Your task to perform on an android device: empty trash in google photos Image 0: 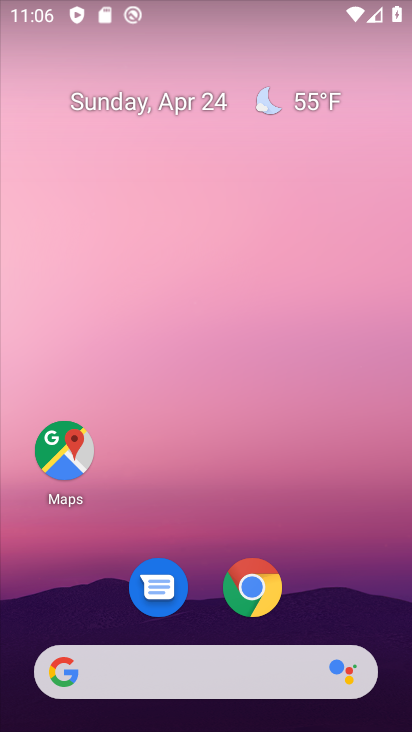
Step 0: drag from (373, 340) to (315, 16)
Your task to perform on an android device: empty trash in google photos Image 1: 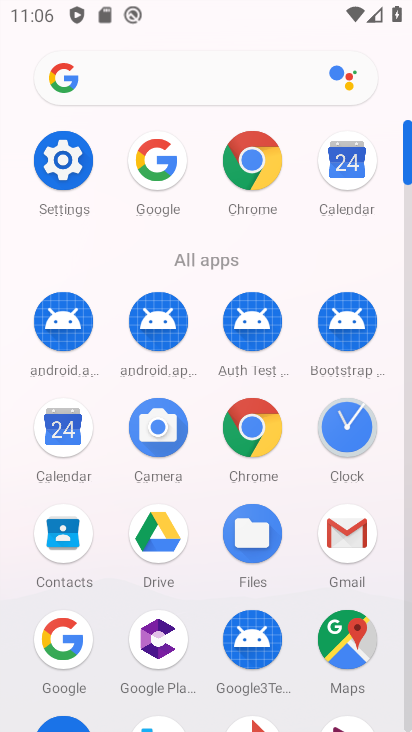
Step 1: drag from (395, 590) to (411, 304)
Your task to perform on an android device: empty trash in google photos Image 2: 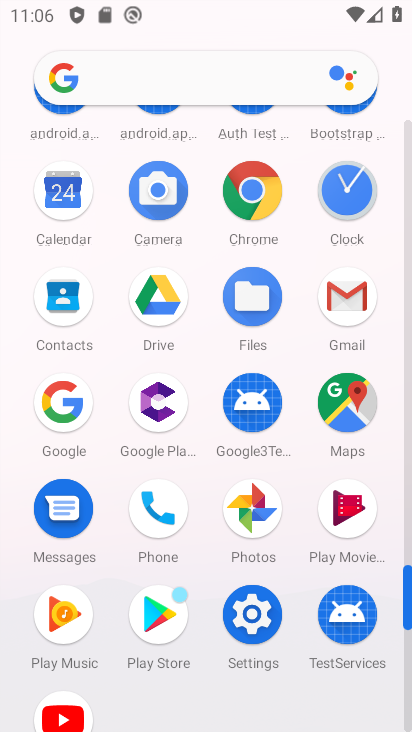
Step 2: drag from (407, 558) to (409, 200)
Your task to perform on an android device: empty trash in google photos Image 3: 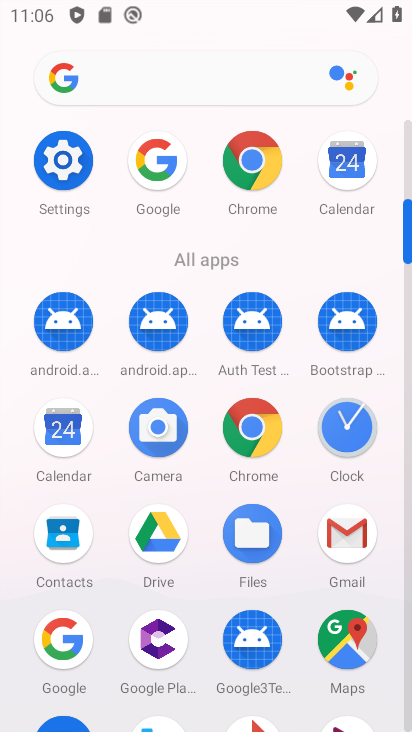
Step 3: click (262, 455)
Your task to perform on an android device: empty trash in google photos Image 4: 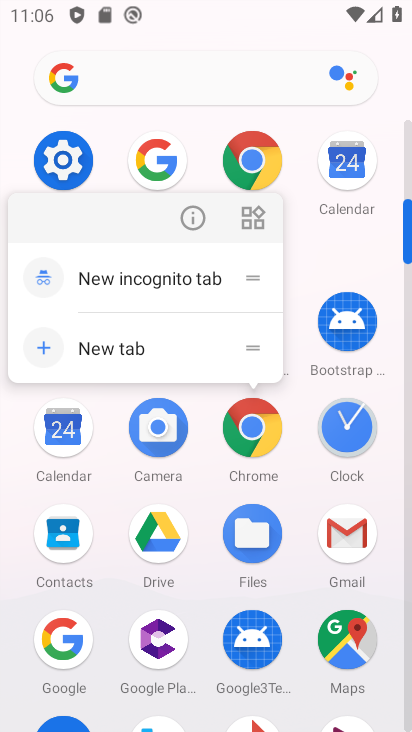
Step 4: drag from (382, 563) to (409, 493)
Your task to perform on an android device: empty trash in google photos Image 5: 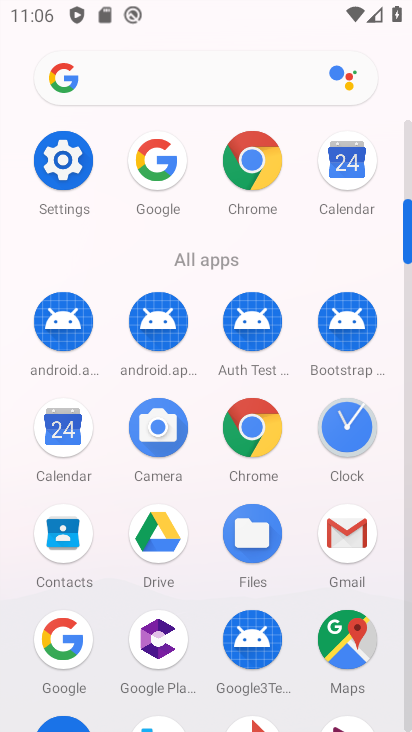
Step 5: drag from (391, 529) to (383, 132)
Your task to perform on an android device: empty trash in google photos Image 6: 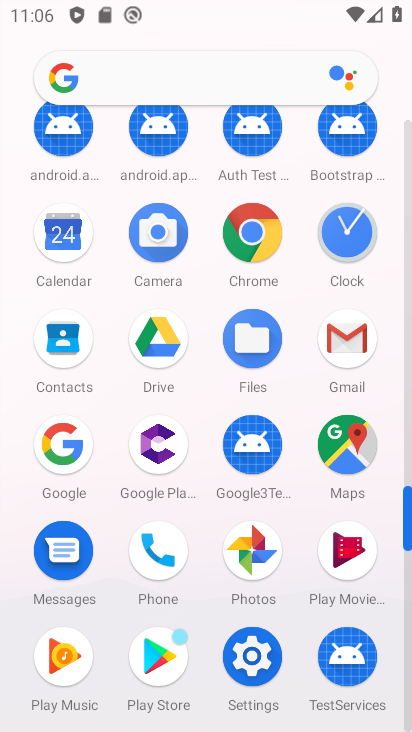
Step 6: click (237, 550)
Your task to perform on an android device: empty trash in google photos Image 7: 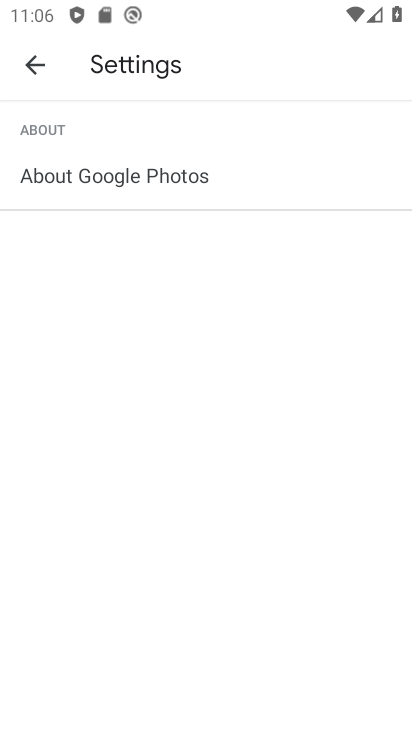
Step 7: click (36, 86)
Your task to perform on an android device: empty trash in google photos Image 8: 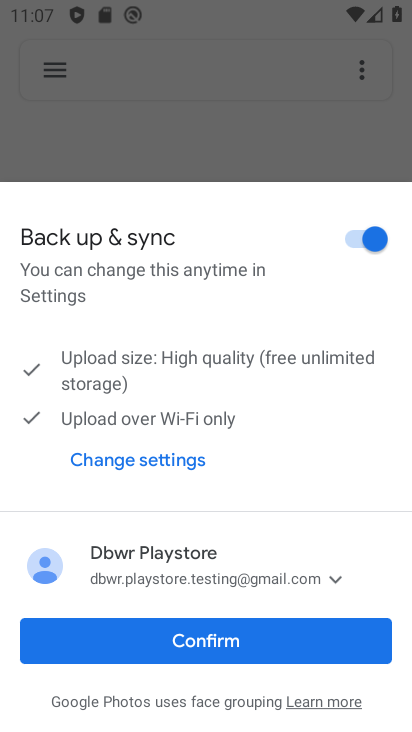
Step 8: click (69, 85)
Your task to perform on an android device: empty trash in google photos Image 9: 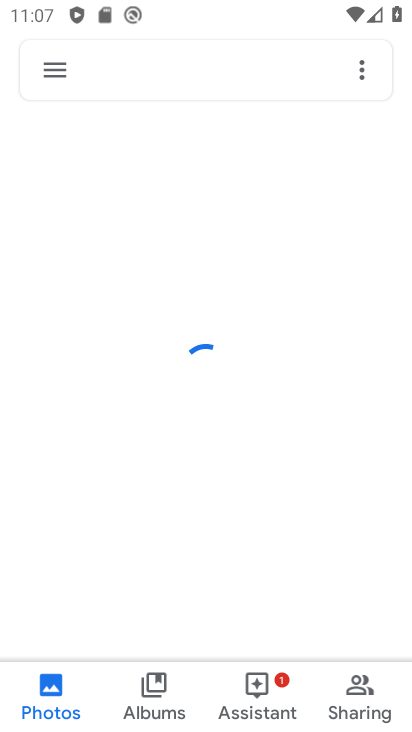
Step 9: click (194, 643)
Your task to perform on an android device: empty trash in google photos Image 10: 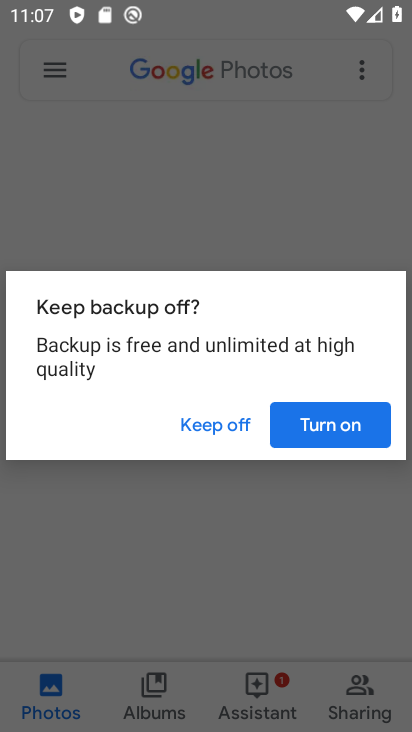
Step 10: click (331, 430)
Your task to perform on an android device: empty trash in google photos Image 11: 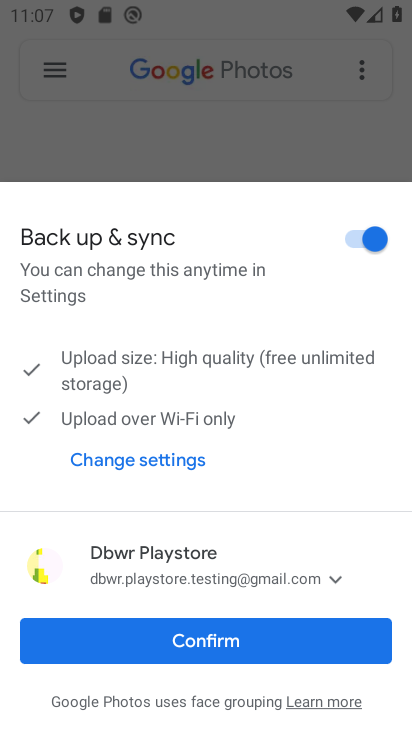
Step 11: click (186, 647)
Your task to perform on an android device: empty trash in google photos Image 12: 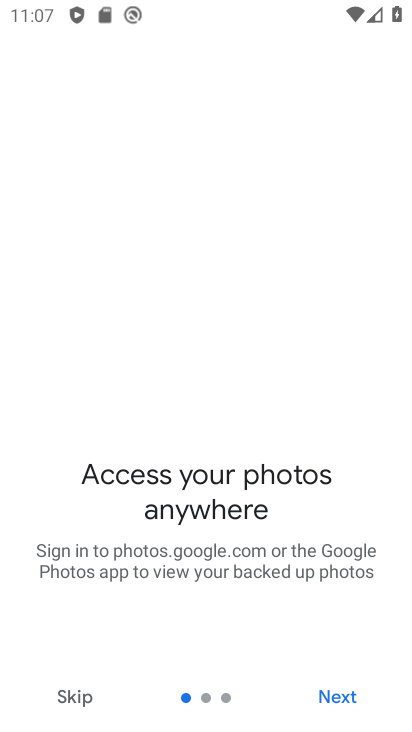
Step 12: click (358, 694)
Your task to perform on an android device: empty trash in google photos Image 13: 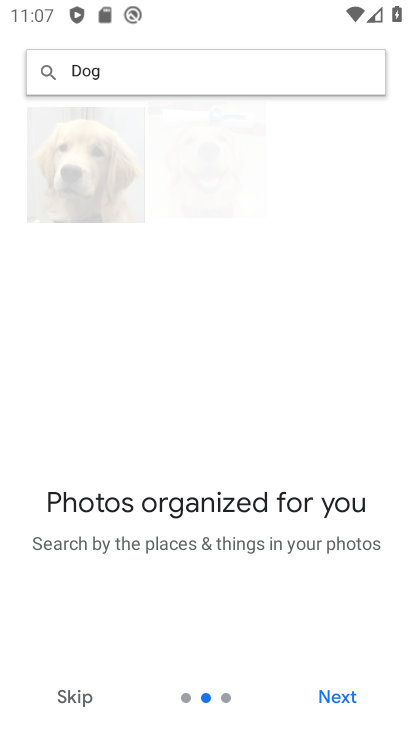
Step 13: click (358, 694)
Your task to perform on an android device: empty trash in google photos Image 14: 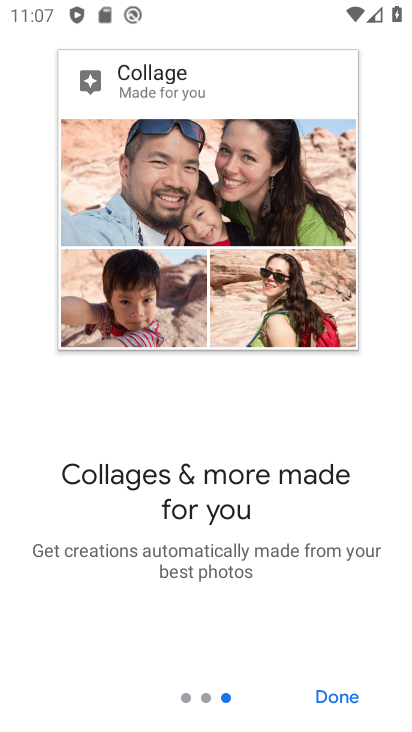
Step 14: click (349, 700)
Your task to perform on an android device: empty trash in google photos Image 15: 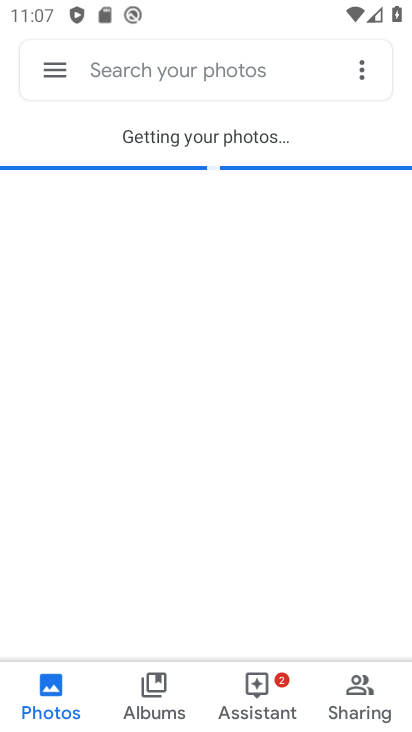
Step 15: click (56, 79)
Your task to perform on an android device: empty trash in google photos Image 16: 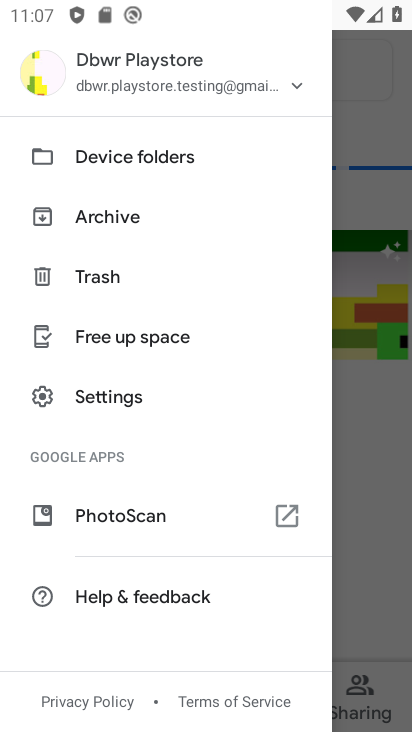
Step 16: click (97, 297)
Your task to perform on an android device: empty trash in google photos Image 17: 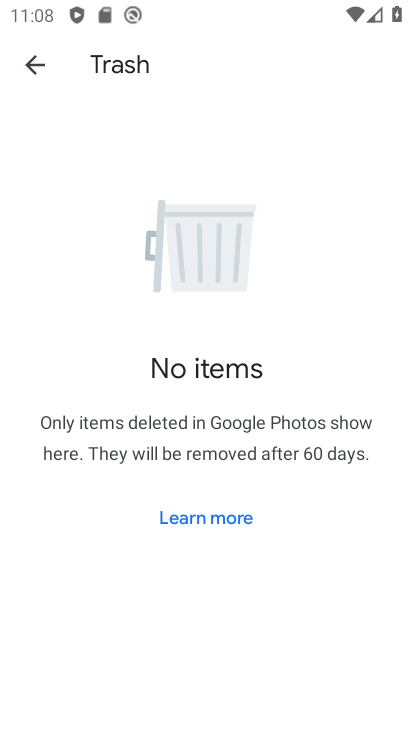
Step 17: task complete